Your task to perform on an android device: change timer sound Image 0: 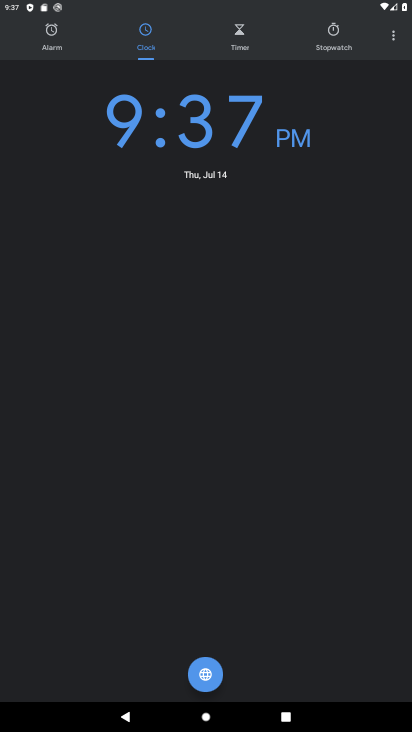
Step 0: press home button
Your task to perform on an android device: change timer sound Image 1: 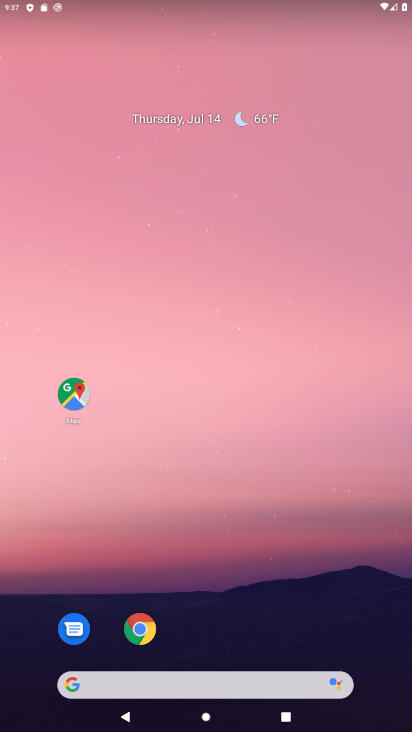
Step 1: drag from (287, 531) to (279, 77)
Your task to perform on an android device: change timer sound Image 2: 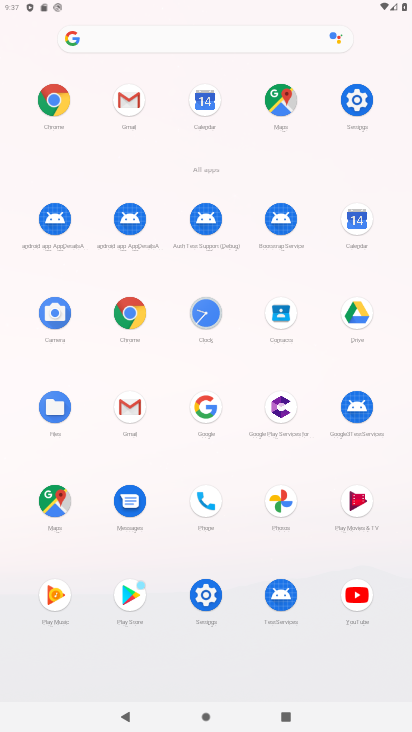
Step 2: click (209, 310)
Your task to perform on an android device: change timer sound Image 3: 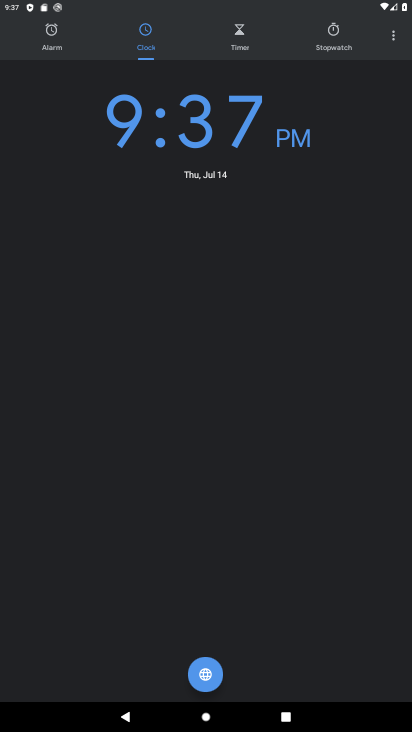
Step 3: click (392, 41)
Your task to perform on an android device: change timer sound Image 4: 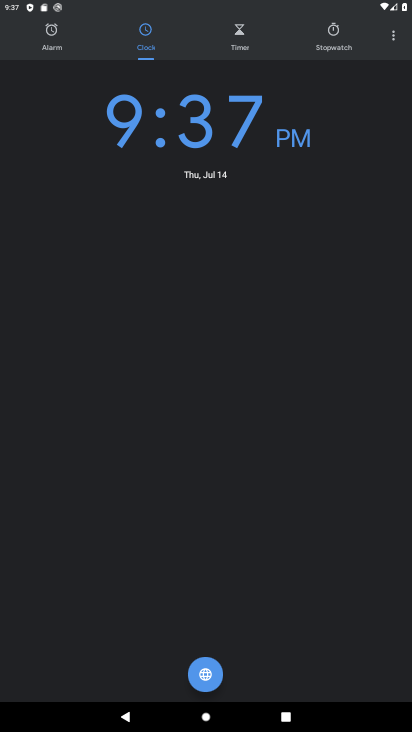
Step 4: click (390, 35)
Your task to perform on an android device: change timer sound Image 5: 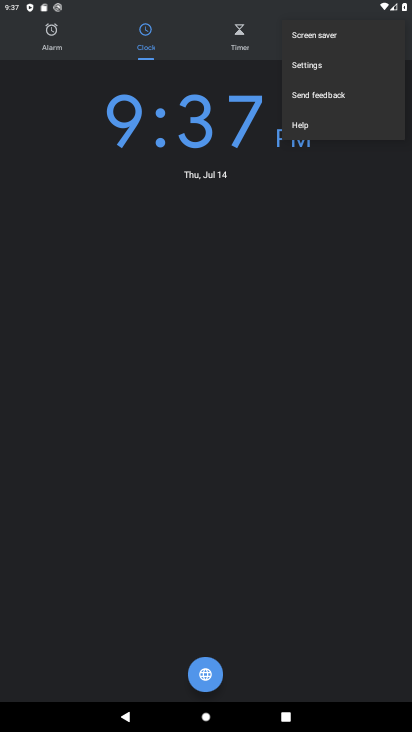
Step 5: click (310, 64)
Your task to perform on an android device: change timer sound Image 6: 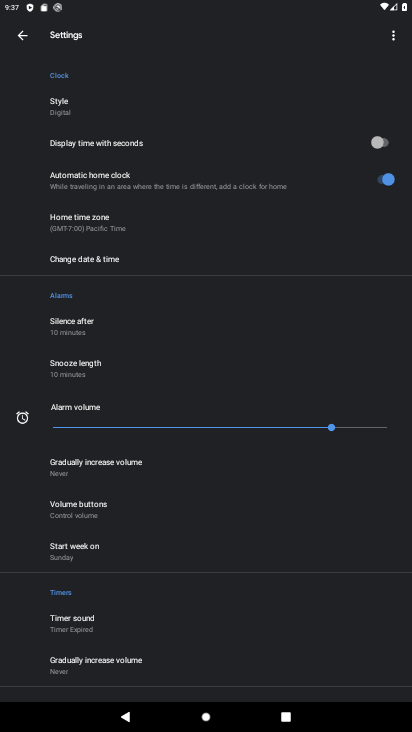
Step 6: click (75, 631)
Your task to perform on an android device: change timer sound Image 7: 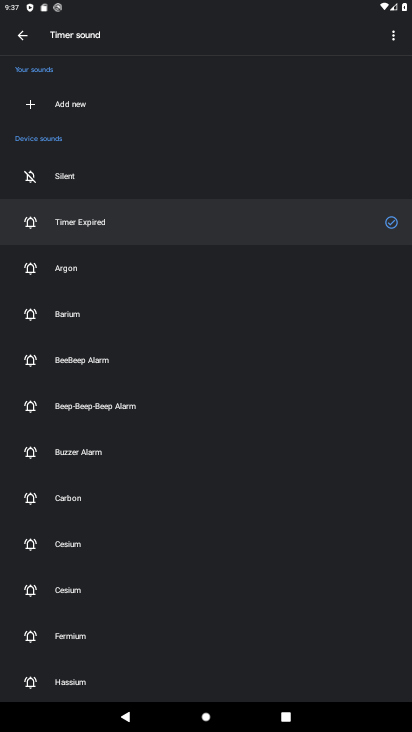
Step 7: click (50, 498)
Your task to perform on an android device: change timer sound Image 8: 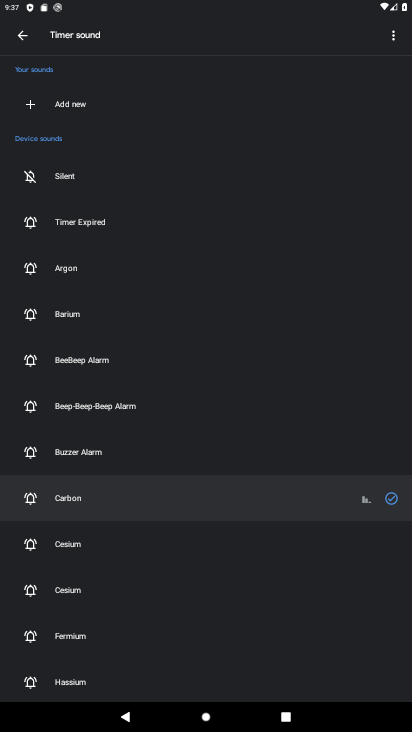
Step 8: task complete